Your task to perform on an android device: Open maps Image 0: 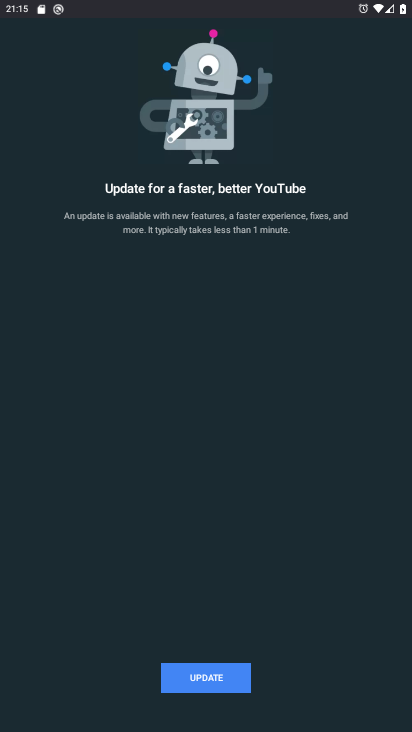
Step 0: press home button
Your task to perform on an android device: Open maps Image 1: 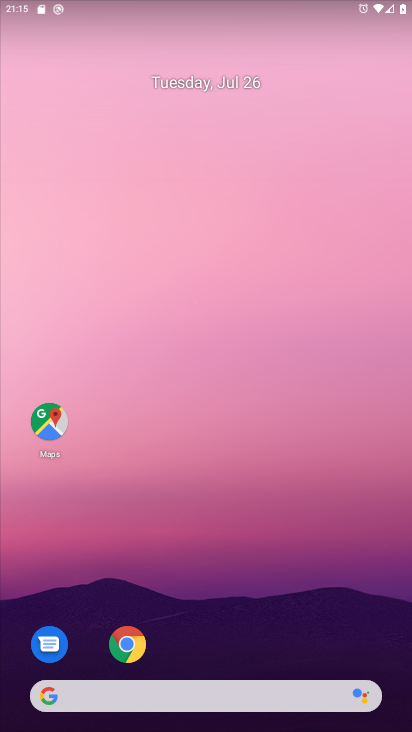
Step 1: click (51, 430)
Your task to perform on an android device: Open maps Image 2: 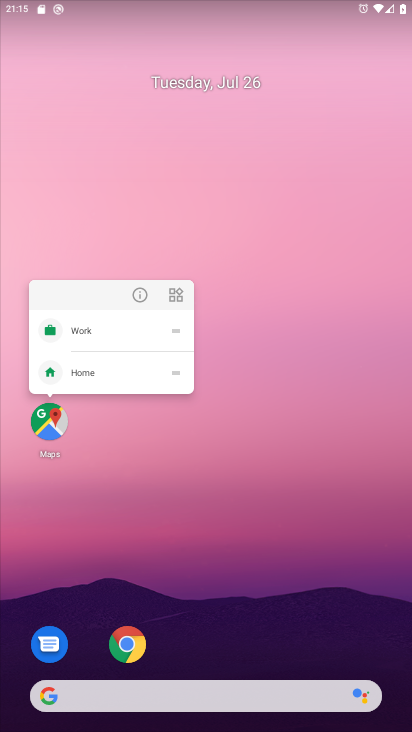
Step 2: click (52, 436)
Your task to perform on an android device: Open maps Image 3: 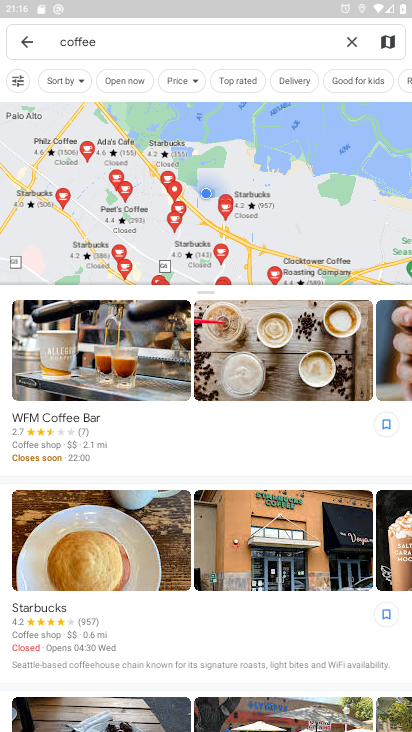
Step 3: task complete